Your task to perform on an android device: turn vacation reply on in the gmail app Image 0: 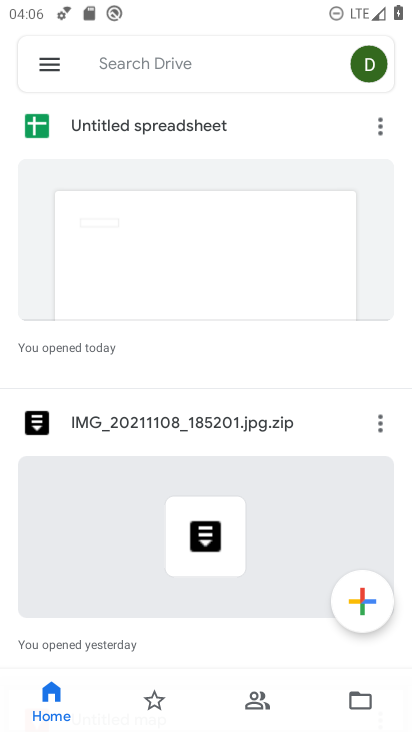
Step 0: press home button
Your task to perform on an android device: turn vacation reply on in the gmail app Image 1: 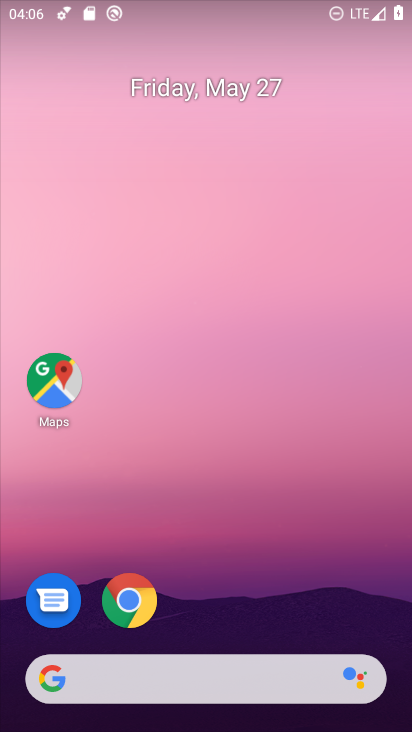
Step 1: drag from (223, 730) to (204, 208)
Your task to perform on an android device: turn vacation reply on in the gmail app Image 2: 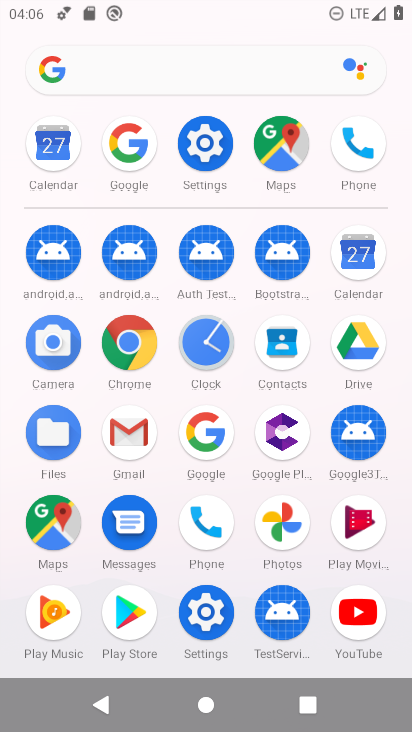
Step 2: click (129, 443)
Your task to perform on an android device: turn vacation reply on in the gmail app Image 3: 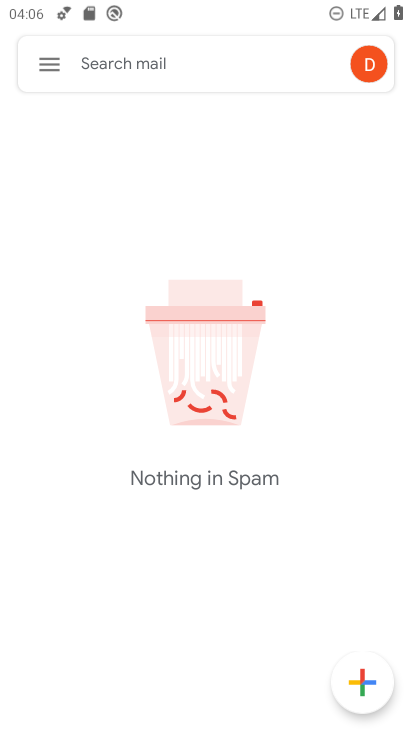
Step 3: click (49, 68)
Your task to perform on an android device: turn vacation reply on in the gmail app Image 4: 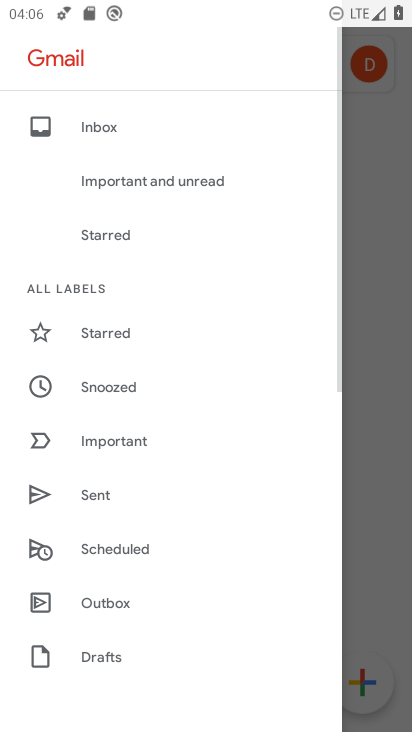
Step 4: drag from (131, 671) to (114, 180)
Your task to perform on an android device: turn vacation reply on in the gmail app Image 5: 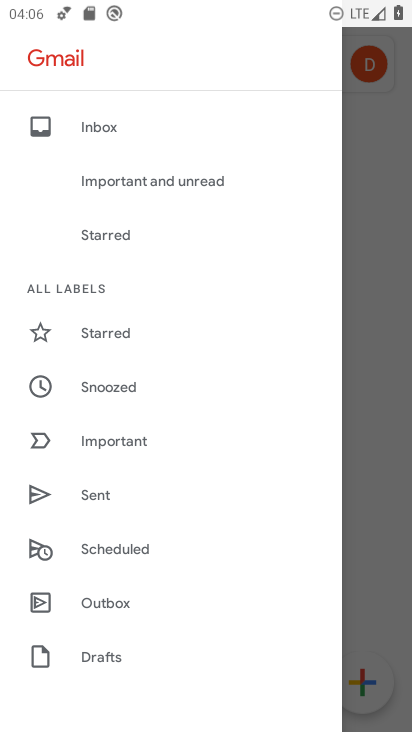
Step 5: drag from (120, 650) to (111, 368)
Your task to perform on an android device: turn vacation reply on in the gmail app Image 6: 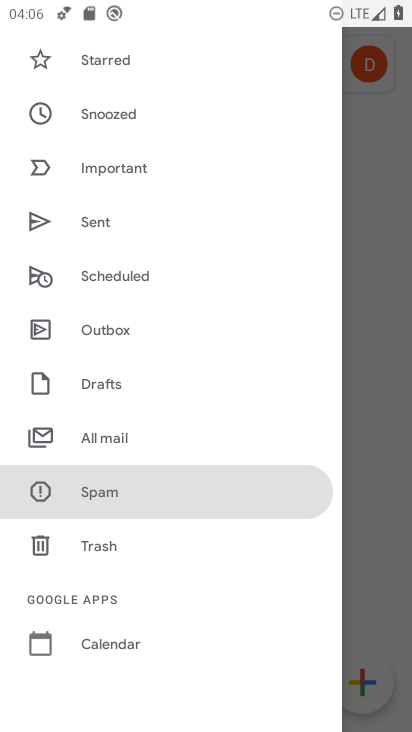
Step 6: drag from (104, 589) to (106, 205)
Your task to perform on an android device: turn vacation reply on in the gmail app Image 7: 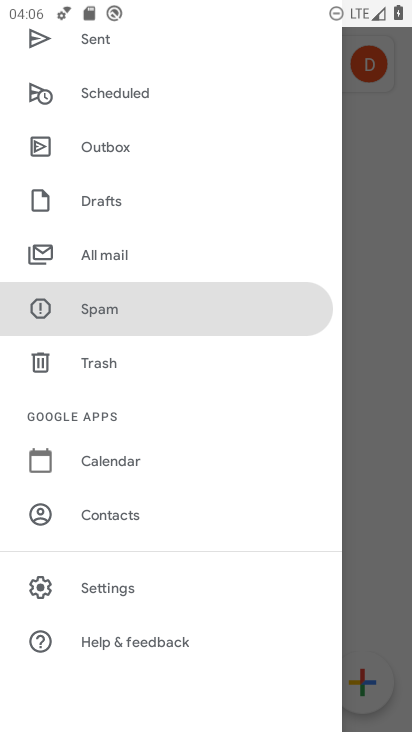
Step 7: click (105, 582)
Your task to perform on an android device: turn vacation reply on in the gmail app Image 8: 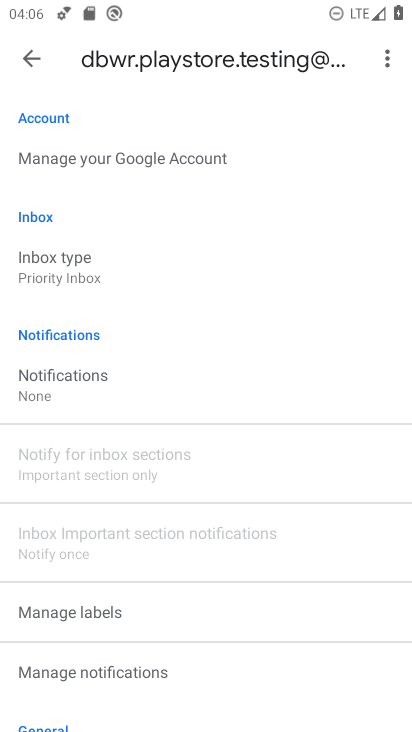
Step 8: drag from (208, 670) to (213, 244)
Your task to perform on an android device: turn vacation reply on in the gmail app Image 9: 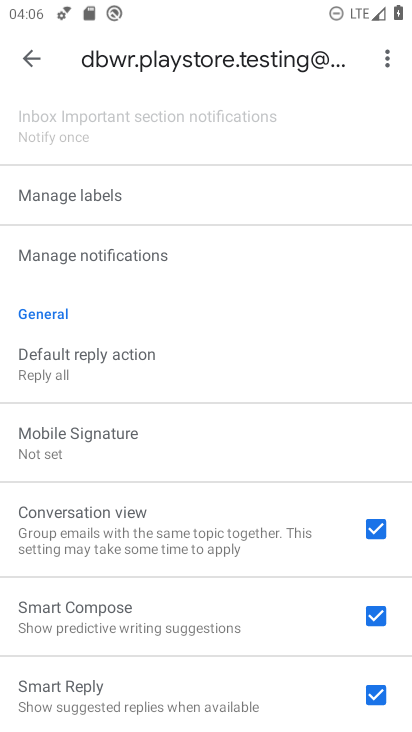
Step 9: drag from (160, 655) to (164, 294)
Your task to perform on an android device: turn vacation reply on in the gmail app Image 10: 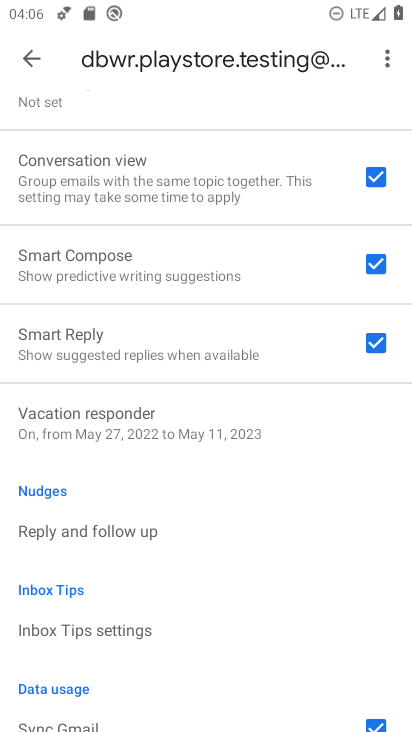
Step 10: click (168, 428)
Your task to perform on an android device: turn vacation reply on in the gmail app Image 11: 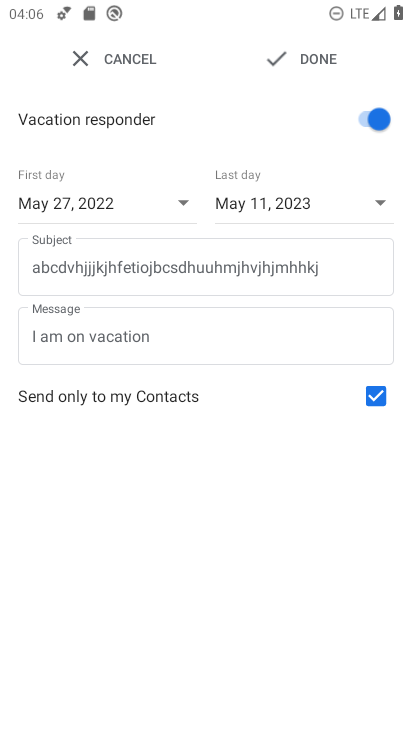
Step 11: task complete